Your task to perform on an android device: Go to Yahoo.com Image 0: 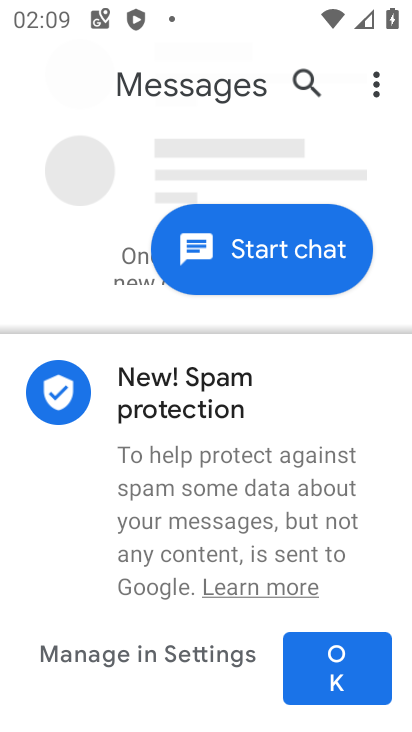
Step 0: press home button
Your task to perform on an android device: Go to Yahoo.com Image 1: 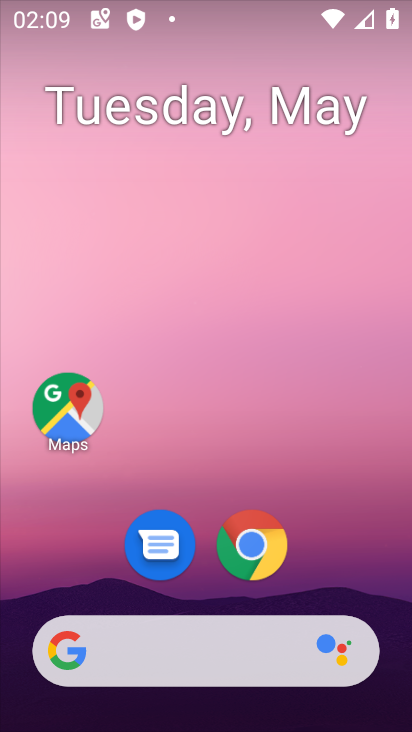
Step 1: click (254, 546)
Your task to perform on an android device: Go to Yahoo.com Image 2: 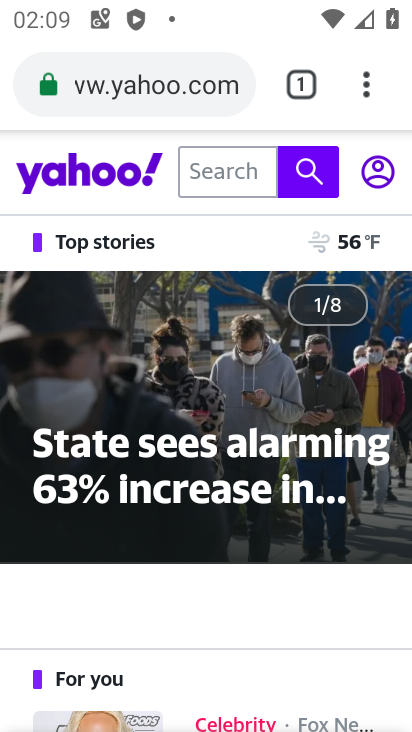
Step 2: task complete